Your task to perform on an android device: see creations saved in the google photos Image 0: 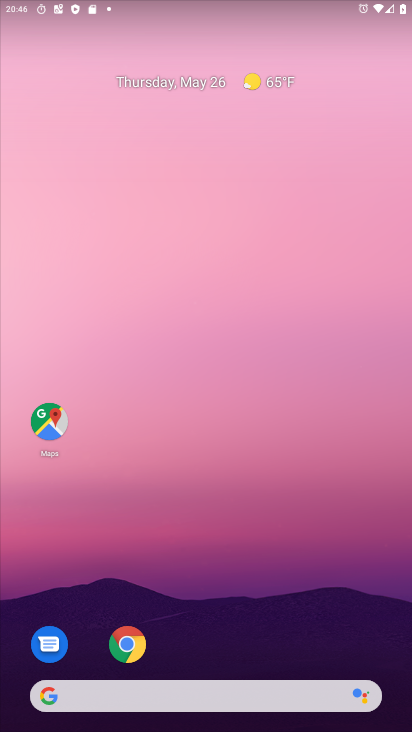
Step 0: drag from (225, 641) to (156, 141)
Your task to perform on an android device: see creations saved in the google photos Image 1: 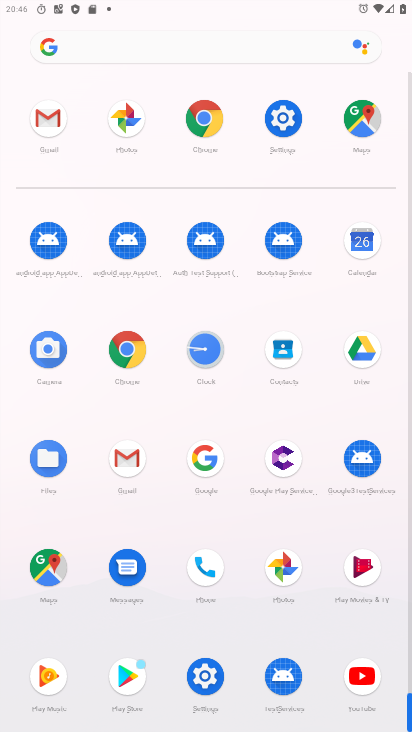
Step 1: click (292, 566)
Your task to perform on an android device: see creations saved in the google photos Image 2: 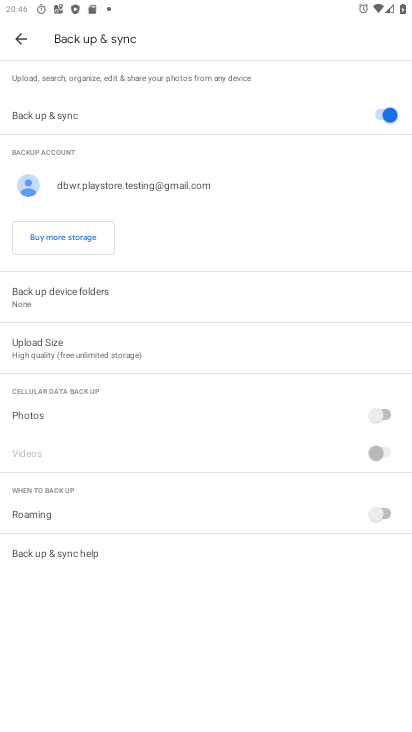
Step 2: click (358, 630)
Your task to perform on an android device: see creations saved in the google photos Image 3: 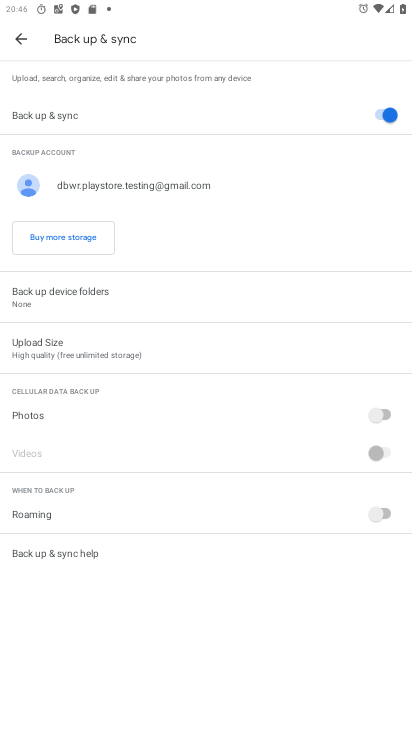
Step 3: click (25, 40)
Your task to perform on an android device: see creations saved in the google photos Image 4: 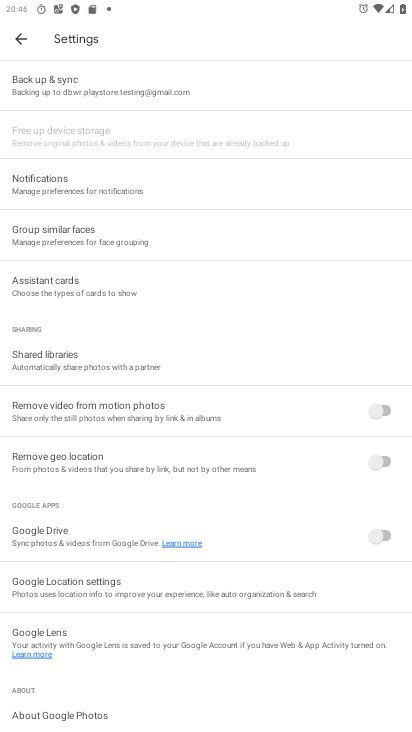
Step 4: click (22, 30)
Your task to perform on an android device: see creations saved in the google photos Image 5: 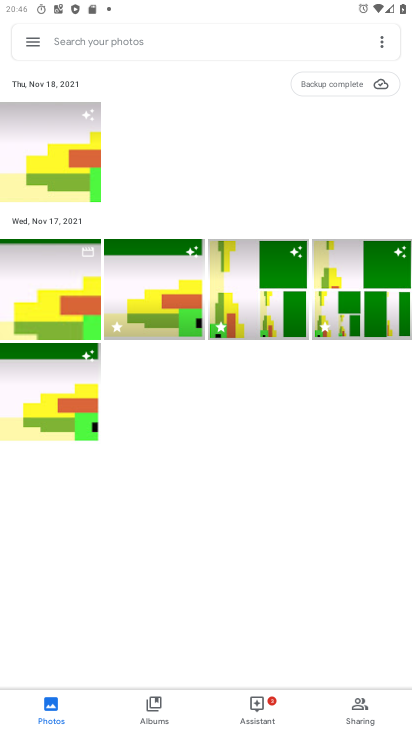
Step 5: click (191, 47)
Your task to perform on an android device: see creations saved in the google photos Image 6: 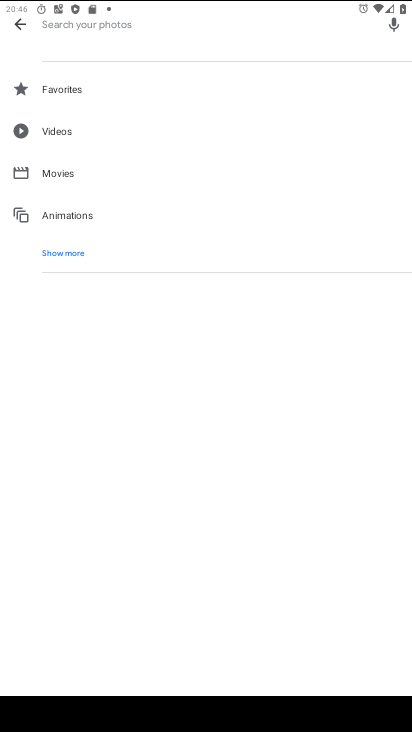
Step 6: click (71, 264)
Your task to perform on an android device: see creations saved in the google photos Image 7: 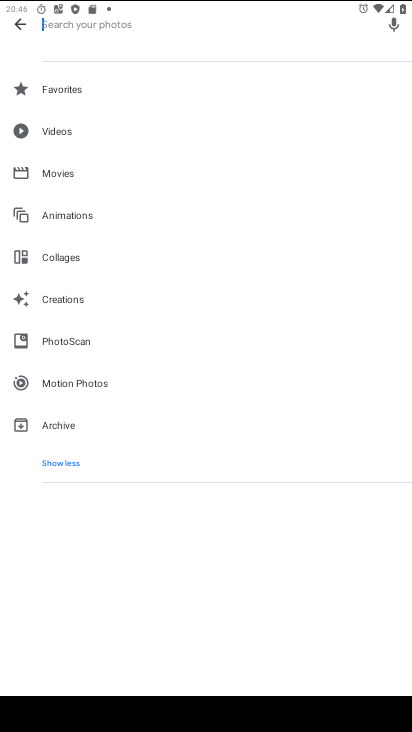
Step 7: click (86, 299)
Your task to perform on an android device: see creations saved in the google photos Image 8: 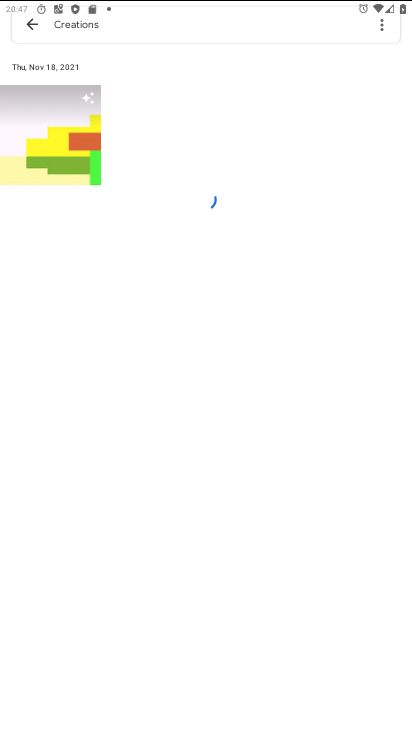
Step 8: drag from (187, 494) to (282, 182)
Your task to perform on an android device: see creations saved in the google photos Image 9: 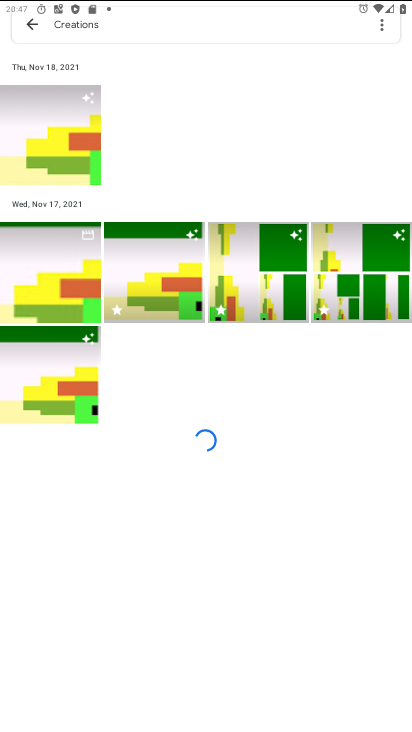
Step 9: click (135, 280)
Your task to perform on an android device: see creations saved in the google photos Image 10: 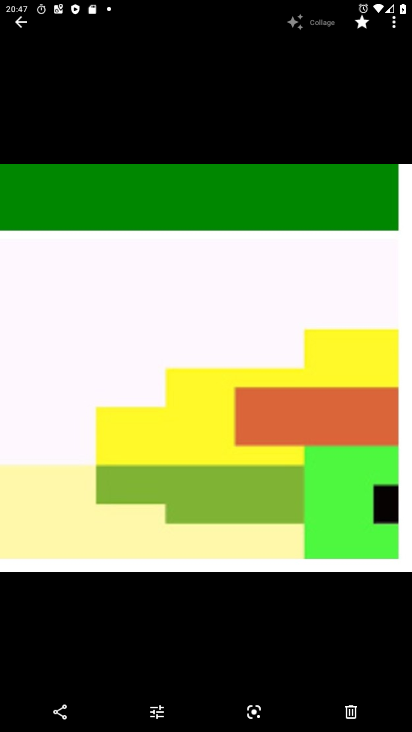
Step 10: task complete